Your task to perform on an android device: search for starred emails in the gmail app Image 0: 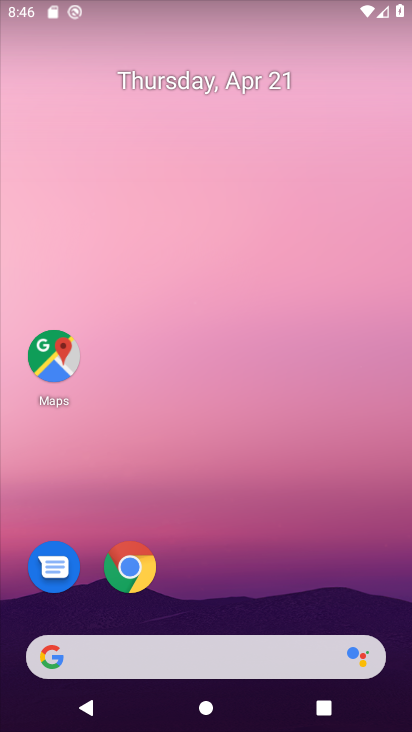
Step 0: drag from (364, 528) to (323, 134)
Your task to perform on an android device: search for starred emails in the gmail app Image 1: 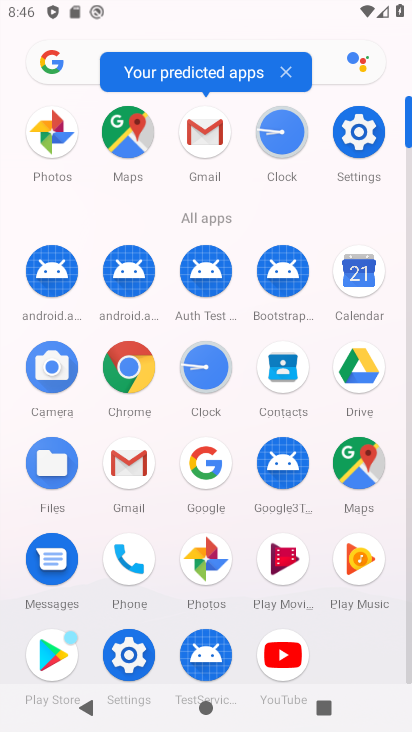
Step 1: click (408, 666)
Your task to perform on an android device: search for starred emails in the gmail app Image 2: 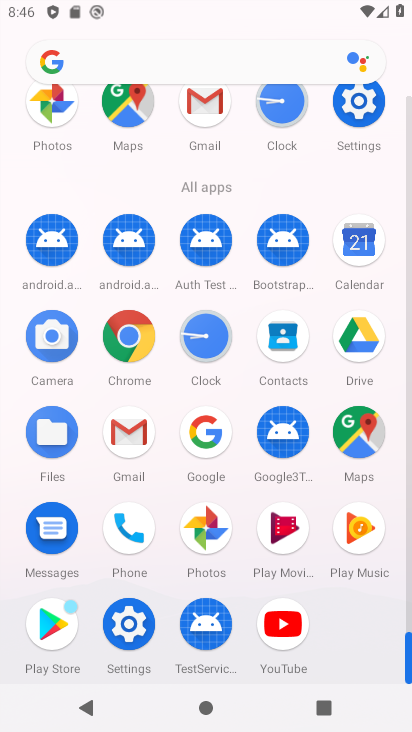
Step 2: click (127, 432)
Your task to perform on an android device: search for starred emails in the gmail app Image 3: 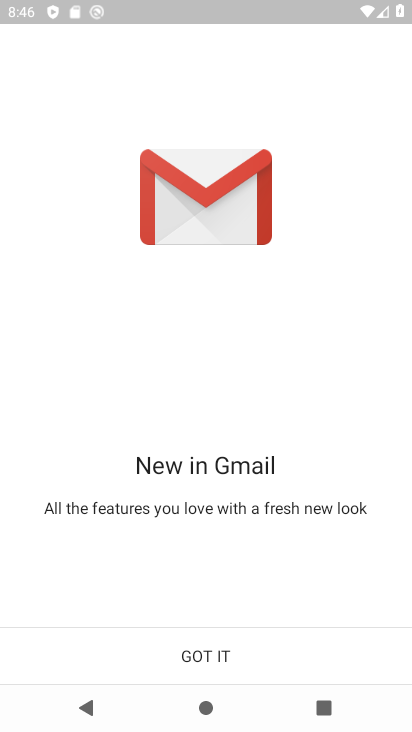
Step 3: click (197, 644)
Your task to perform on an android device: search for starred emails in the gmail app Image 4: 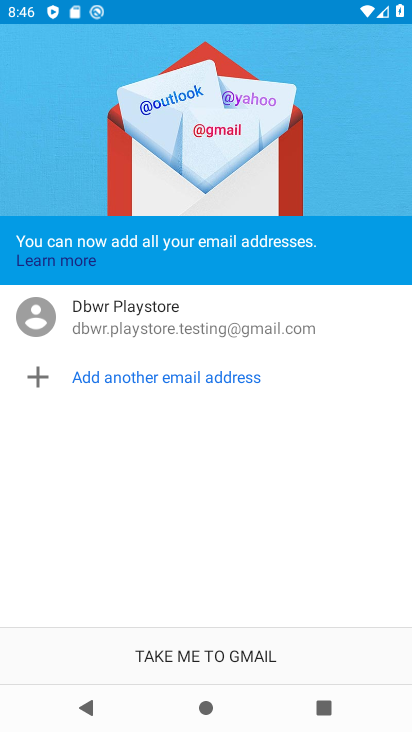
Step 4: click (197, 644)
Your task to perform on an android device: search for starred emails in the gmail app Image 5: 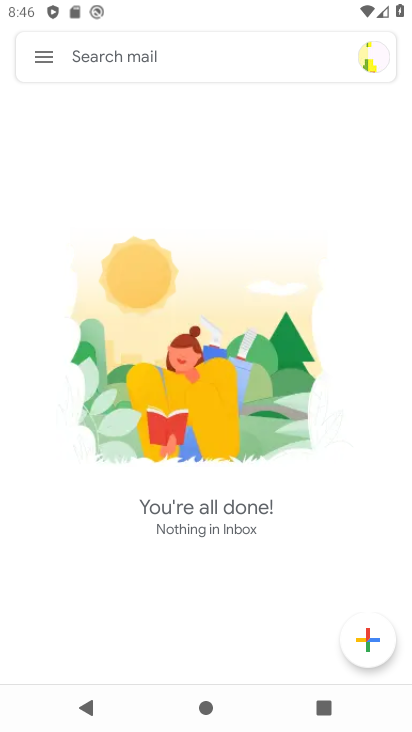
Step 5: click (42, 60)
Your task to perform on an android device: search for starred emails in the gmail app Image 6: 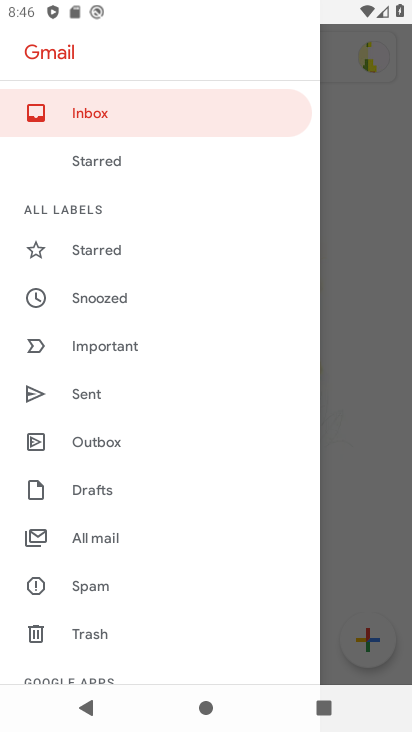
Step 6: click (100, 246)
Your task to perform on an android device: search for starred emails in the gmail app Image 7: 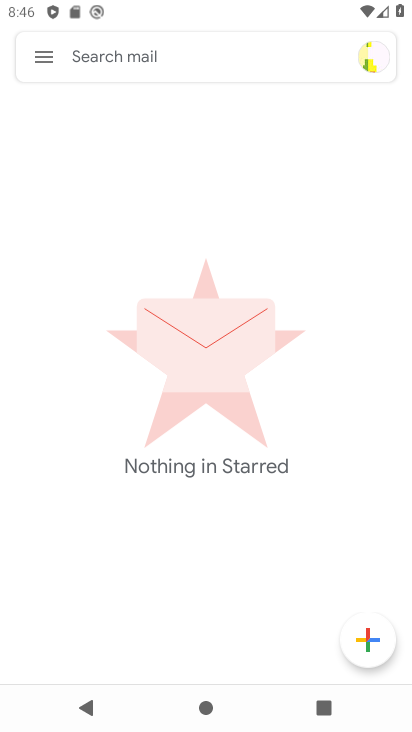
Step 7: task complete